Your task to perform on an android device: Open Google Maps Image 0: 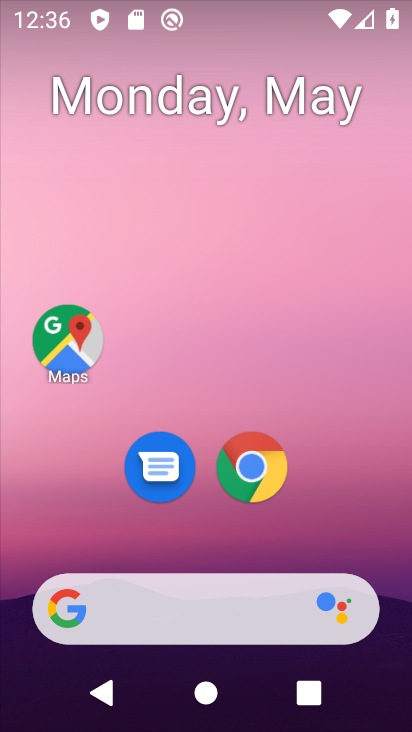
Step 0: click (66, 330)
Your task to perform on an android device: Open Google Maps Image 1: 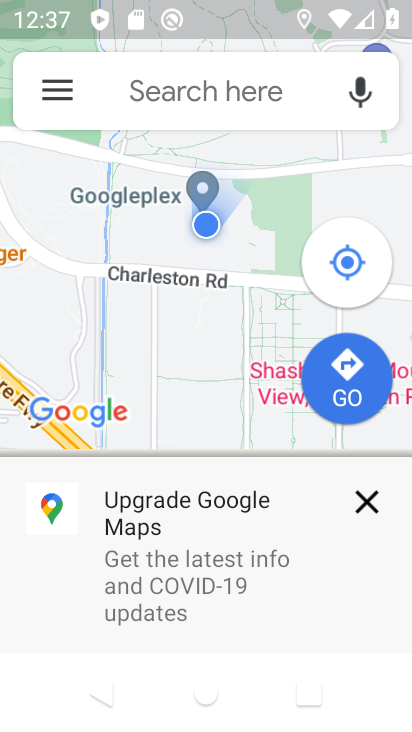
Step 1: task complete